Your task to perform on an android device: turn off javascript in the chrome app Image 0: 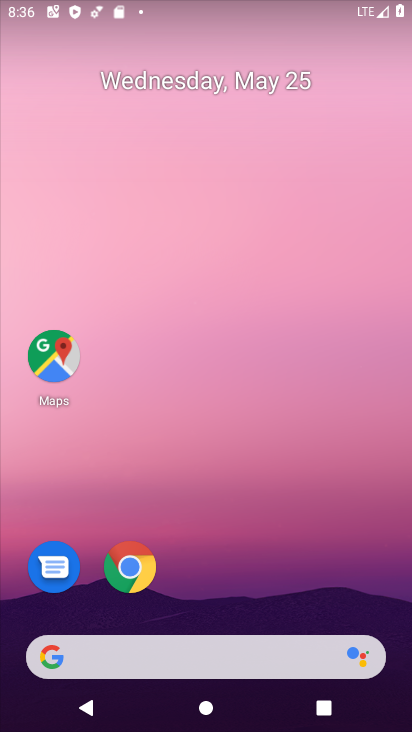
Step 0: click (136, 570)
Your task to perform on an android device: turn off javascript in the chrome app Image 1: 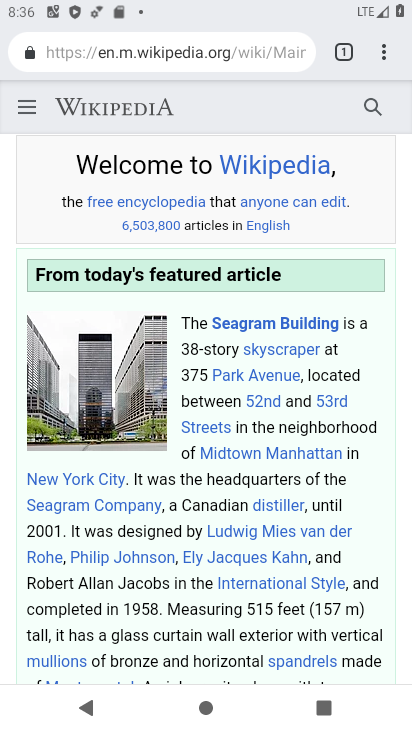
Step 1: click (386, 46)
Your task to perform on an android device: turn off javascript in the chrome app Image 2: 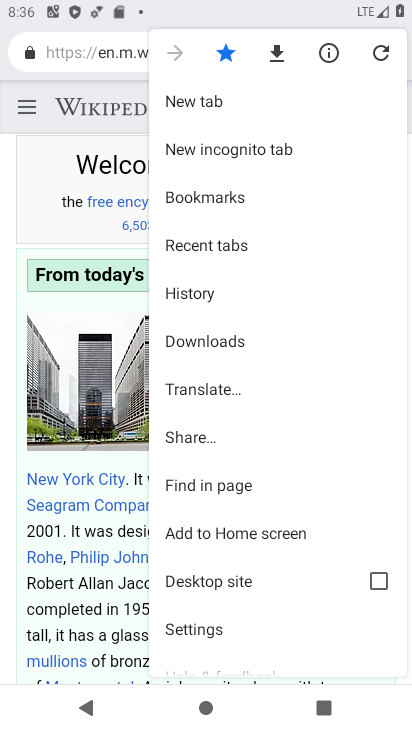
Step 2: click (249, 631)
Your task to perform on an android device: turn off javascript in the chrome app Image 3: 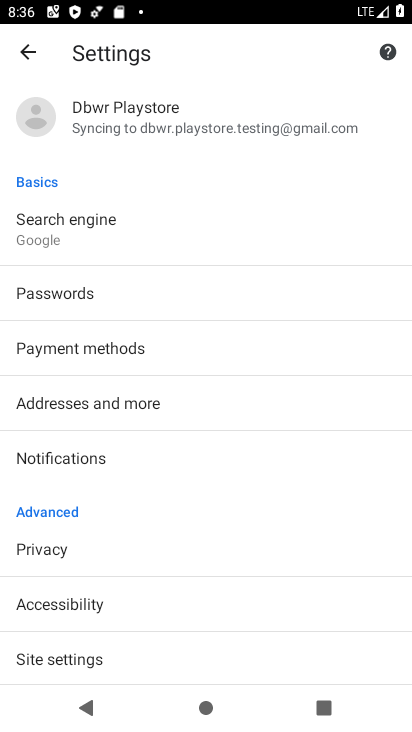
Step 3: click (236, 659)
Your task to perform on an android device: turn off javascript in the chrome app Image 4: 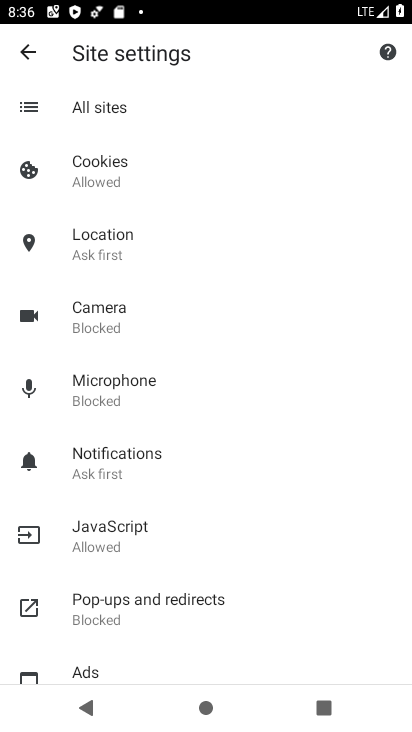
Step 4: click (195, 550)
Your task to perform on an android device: turn off javascript in the chrome app Image 5: 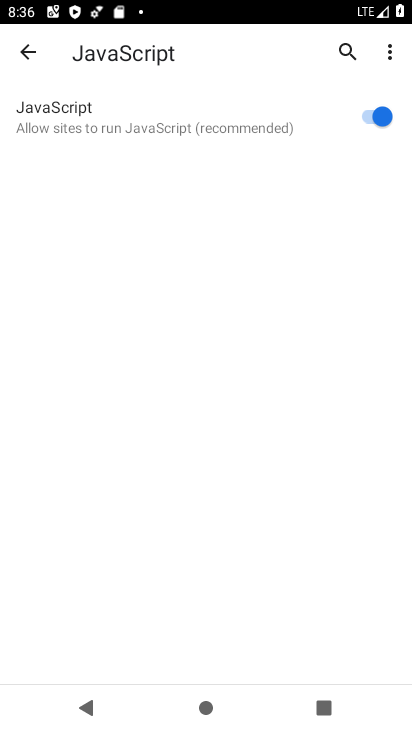
Step 5: click (383, 105)
Your task to perform on an android device: turn off javascript in the chrome app Image 6: 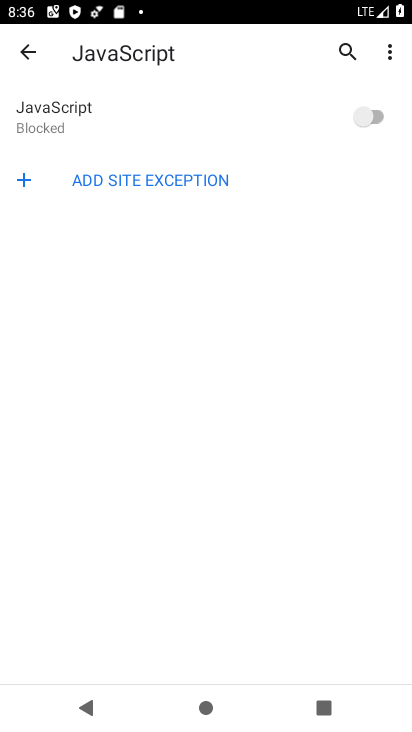
Step 6: task complete